Your task to perform on an android device: check the backup settings in the google photos Image 0: 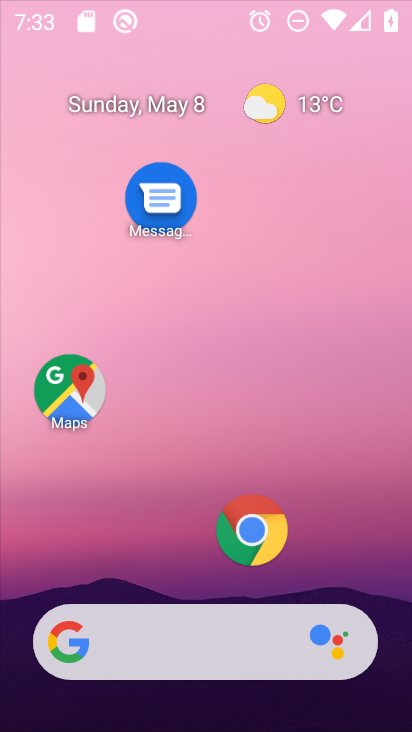
Step 0: press home button
Your task to perform on an android device: check the backup settings in the google photos Image 1: 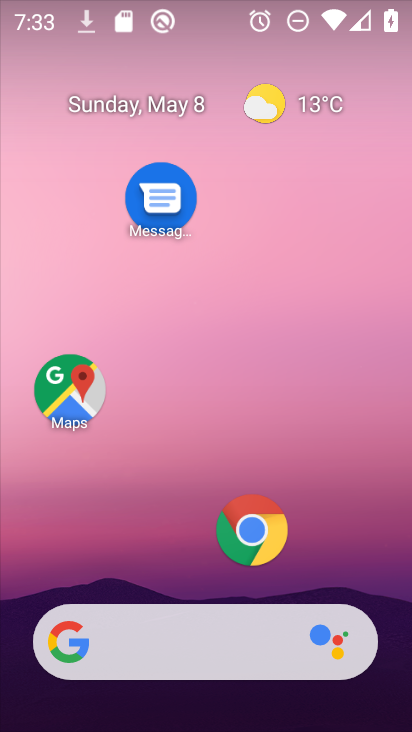
Step 1: press home button
Your task to perform on an android device: check the backup settings in the google photos Image 2: 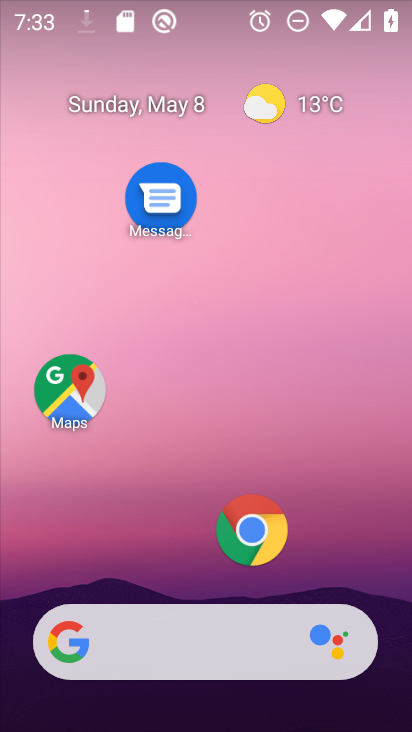
Step 2: drag from (186, 575) to (235, 38)
Your task to perform on an android device: check the backup settings in the google photos Image 3: 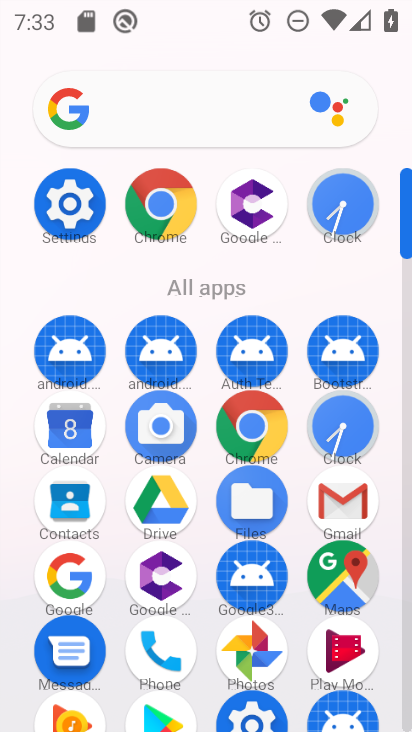
Step 3: click (250, 644)
Your task to perform on an android device: check the backup settings in the google photos Image 4: 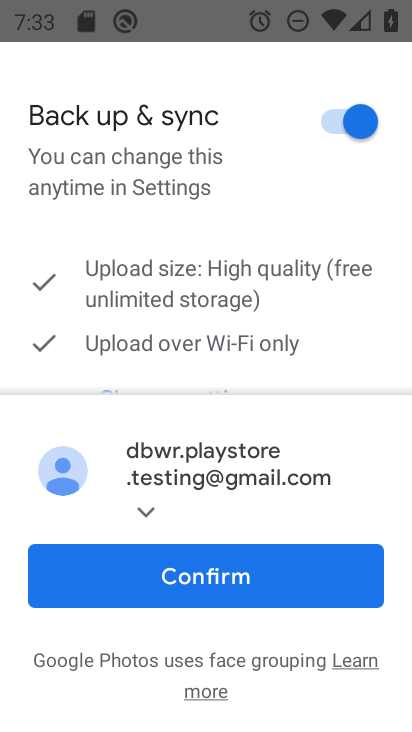
Step 4: click (223, 588)
Your task to perform on an android device: check the backup settings in the google photos Image 5: 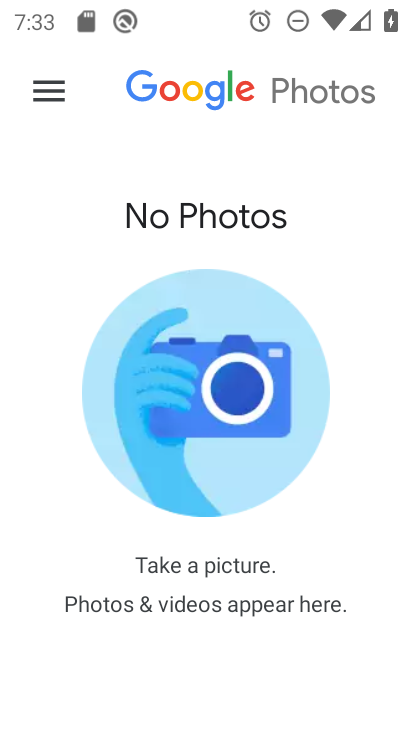
Step 5: click (49, 84)
Your task to perform on an android device: check the backup settings in the google photos Image 6: 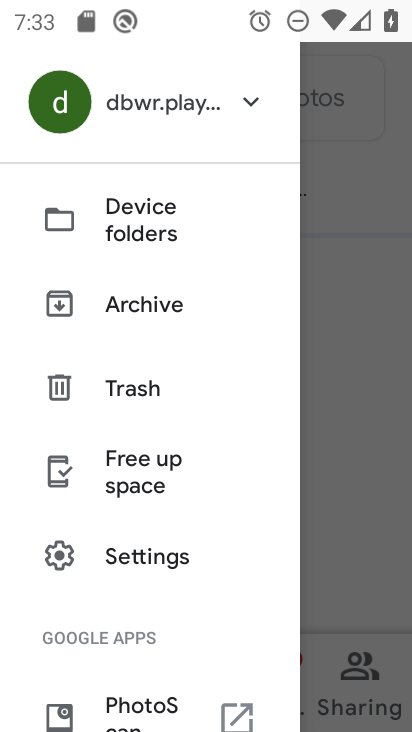
Step 6: click (141, 561)
Your task to perform on an android device: check the backup settings in the google photos Image 7: 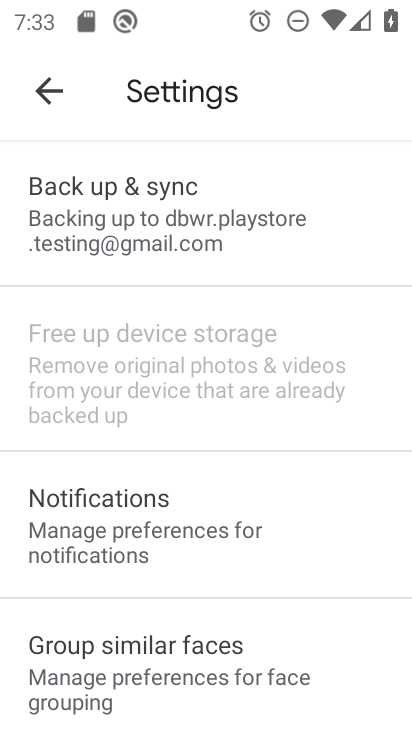
Step 7: click (122, 254)
Your task to perform on an android device: check the backup settings in the google photos Image 8: 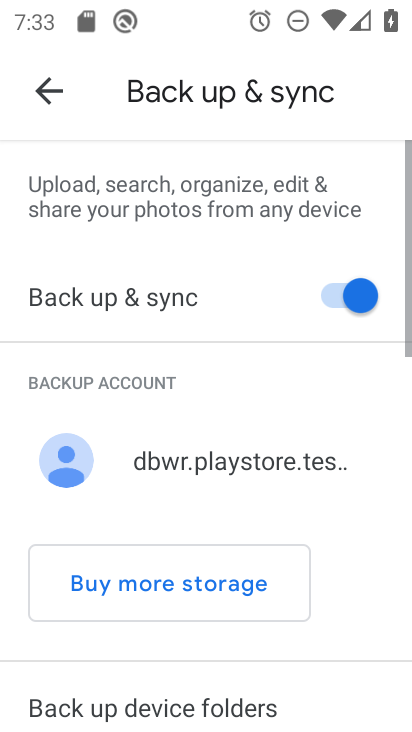
Step 8: task complete